Your task to perform on an android device: Open Google Chrome Image 0: 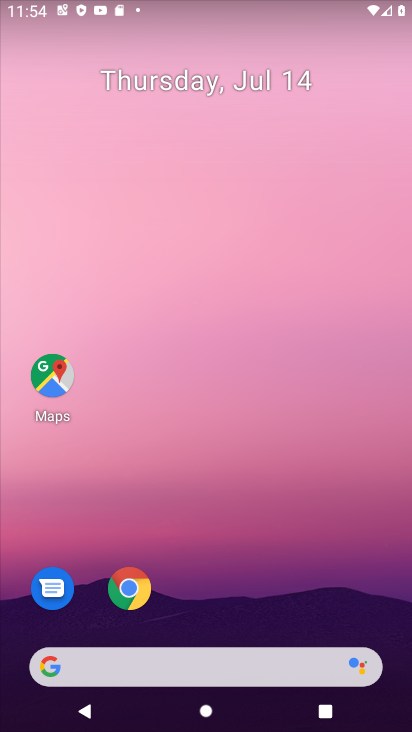
Step 0: click (117, 589)
Your task to perform on an android device: Open Google Chrome Image 1: 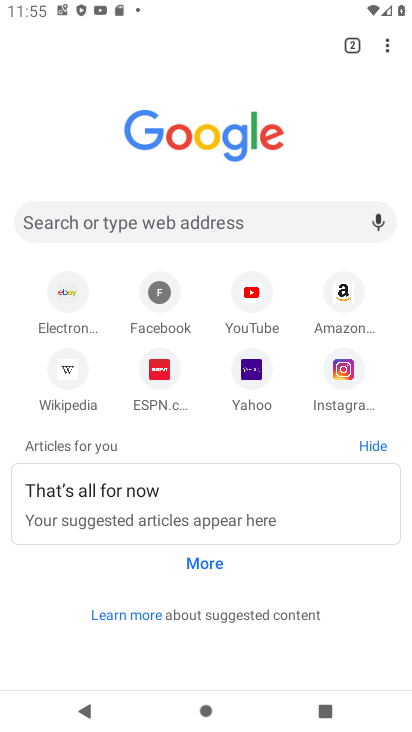
Step 1: task complete